Your task to perform on an android device: change alarm snooze length Image 0: 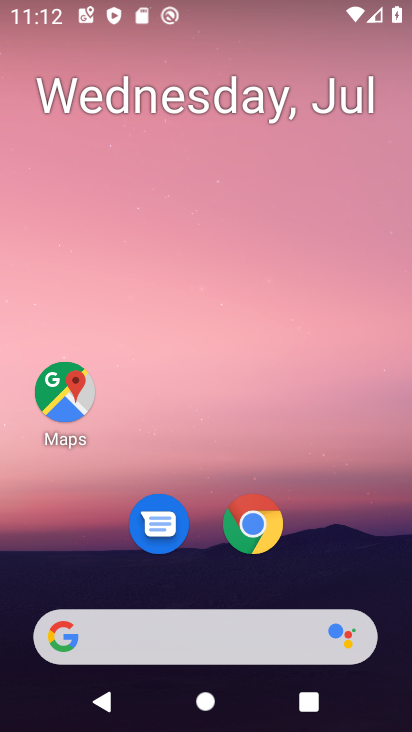
Step 0: press home button
Your task to perform on an android device: change alarm snooze length Image 1: 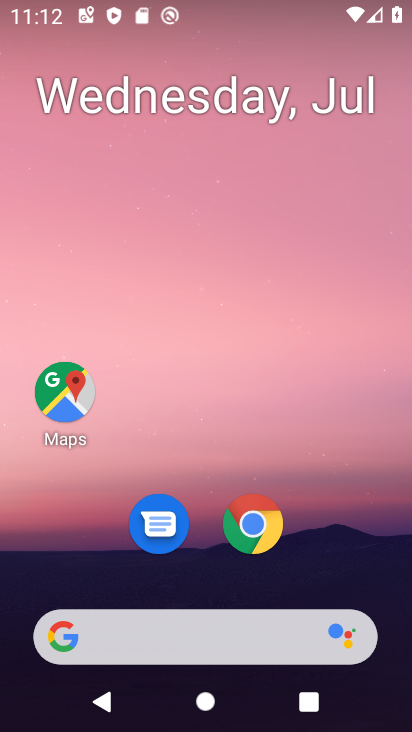
Step 1: drag from (174, 640) to (307, 135)
Your task to perform on an android device: change alarm snooze length Image 2: 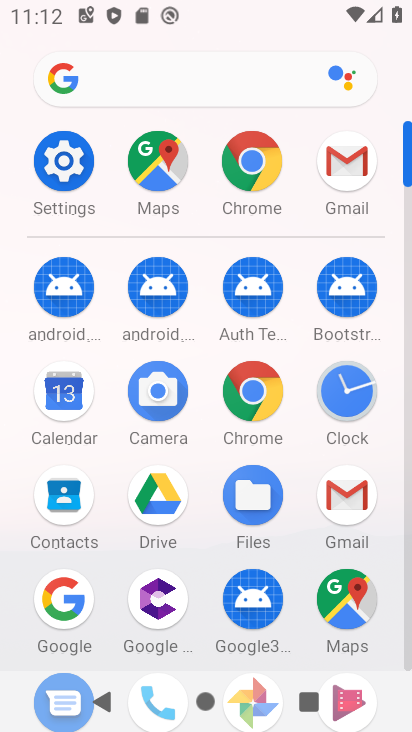
Step 2: click (354, 399)
Your task to perform on an android device: change alarm snooze length Image 3: 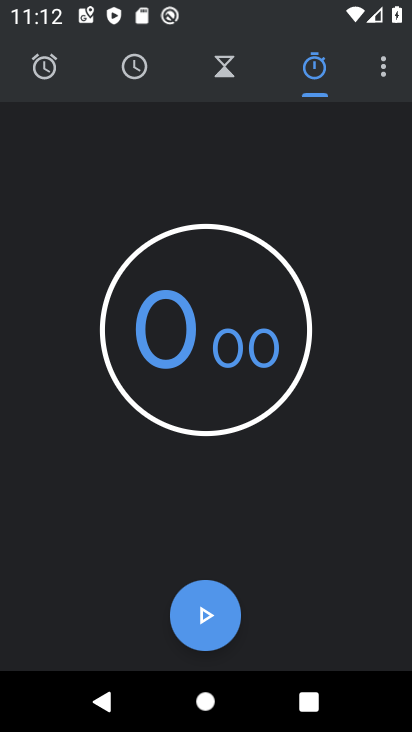
Step 3: click (384, 68)
Your task to perform on an android device: change alarm snooze length Image 4: 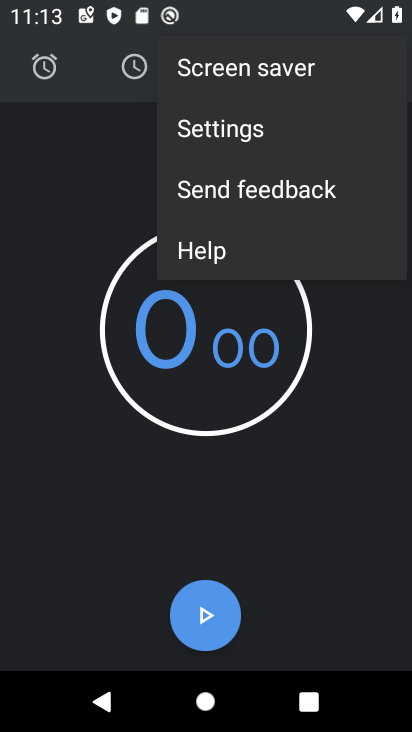
Step 4: click (235, 135)
Your task to perform on an android device: change alarm snooze length Image 5: 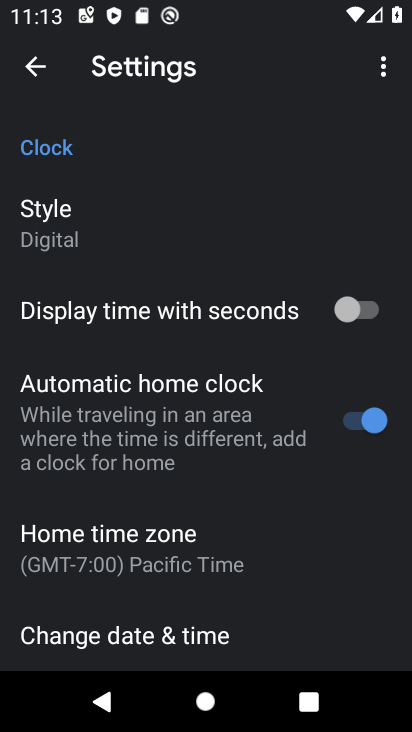
Step 5: drag from (232, 596) to (365, 98)
Your task to perform on an android device: change alarm snooze length Image 6: 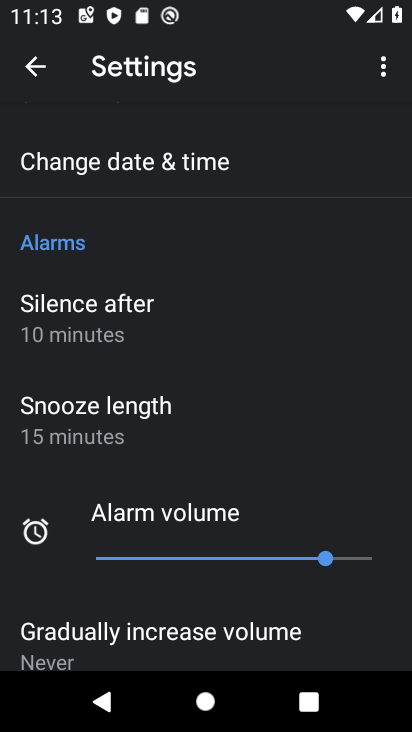
Step 6: click (82, 426)
Your task to perform on an android device: change alarm snooze length Image 7: 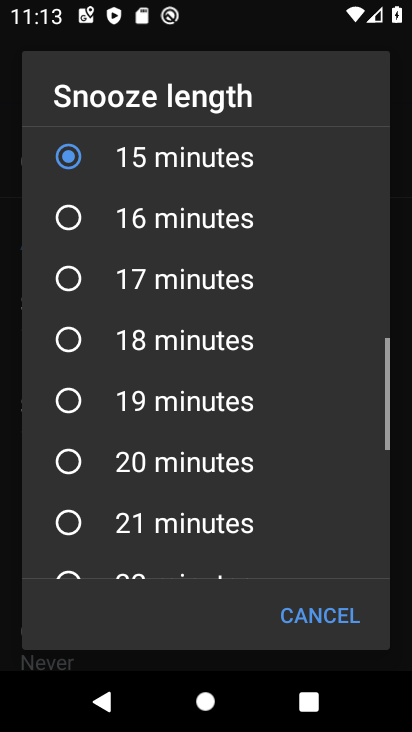
Step 7: drag from (152, 234) to (159, 538)
Your task to perform on an android device: change alarm snooze length Image 8: 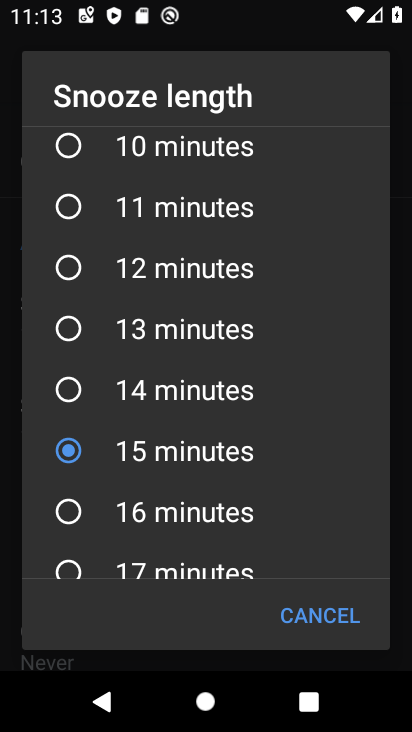
Step 8: click (71, 147)
Your task to perform on an android device: change alarm snooze length Image 9: 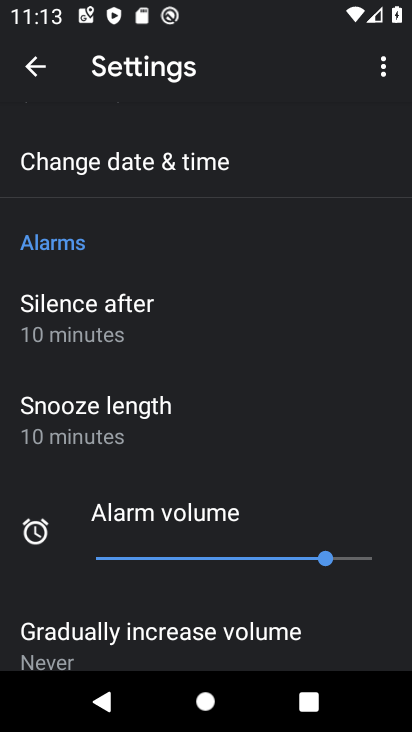
Step 9: task complete